Your task to perform on an android device: make emails show in primary in the gmail app Image 0: 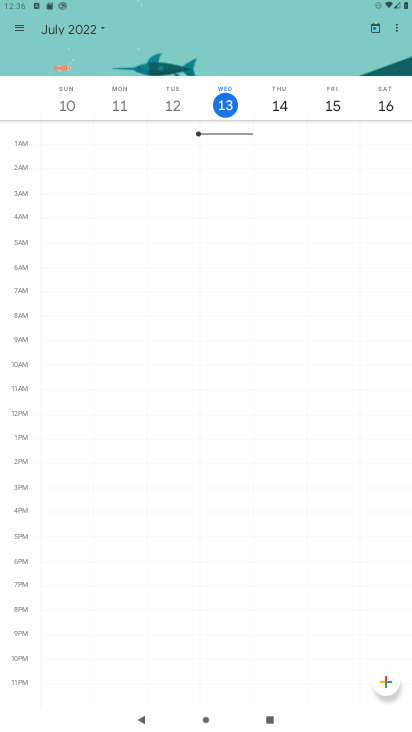
Step 0: press home button
Your task to perform on an android device: make emails show in primary in the gmail app Image 1: 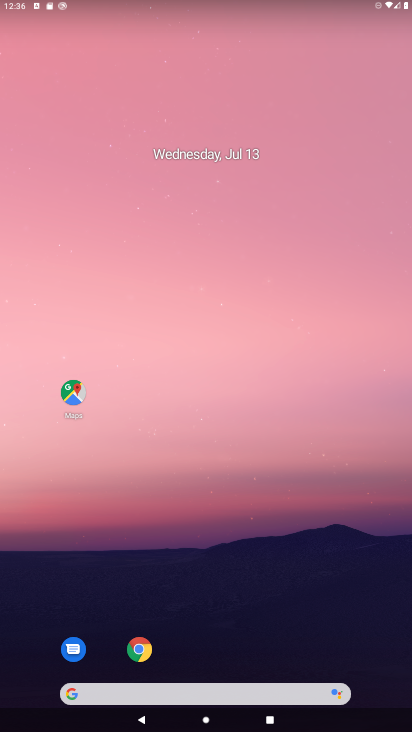
Step 1: drag from (383, 639) to (353, 204)
Your task to perform on an android device: make emails show in primary in the gmail app Image 2: 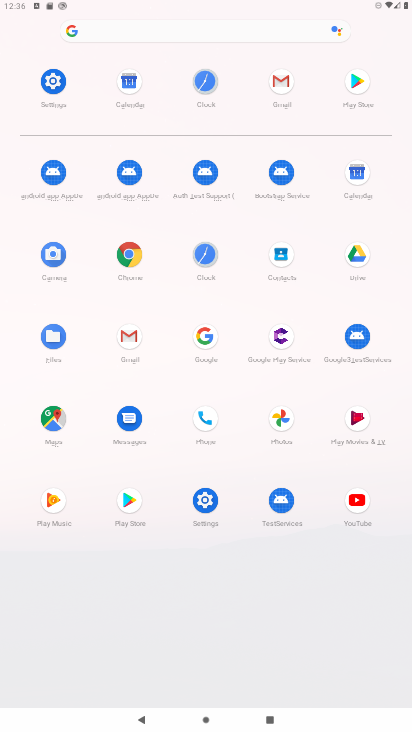
Step 2: click (126, 335)
Your task to perform on an android device: make emails show in primary in the gmail app Image 3: 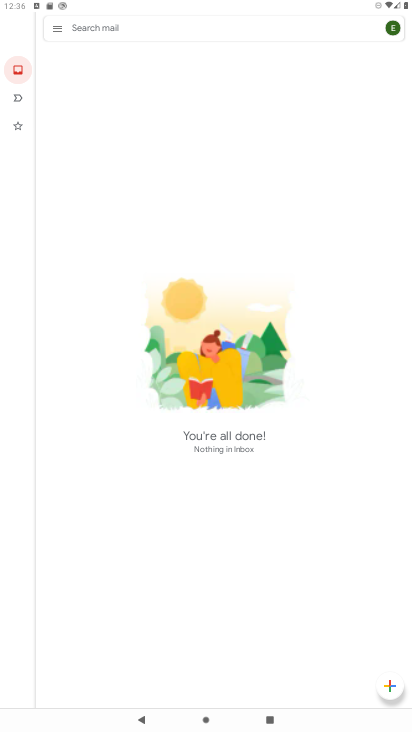
Step 3: click (57, 30)
Your task to perform on an android device: make emails show in primary in the gmail app Image 4: 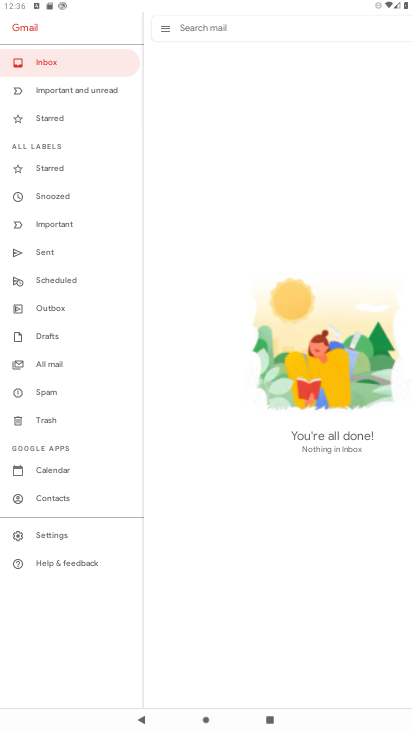
Step 4: click (38, 533)
Your task to perform on an android device: make emails show in primary in the gmail app Image 5: 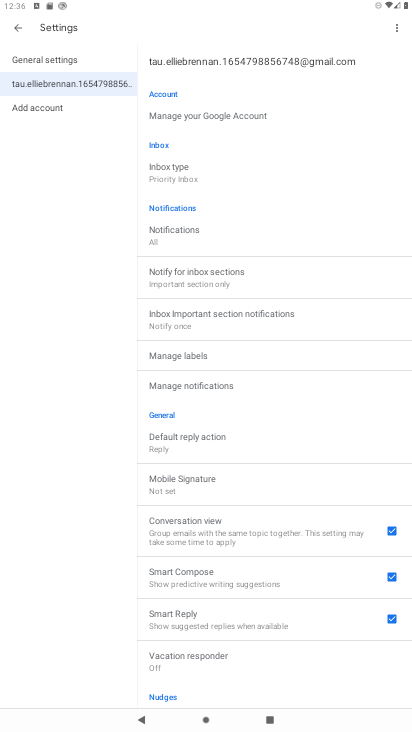
Step 5: click (171, 163)
Your task to perform on an android device: make emails show in primary in the gmail app Image 6: 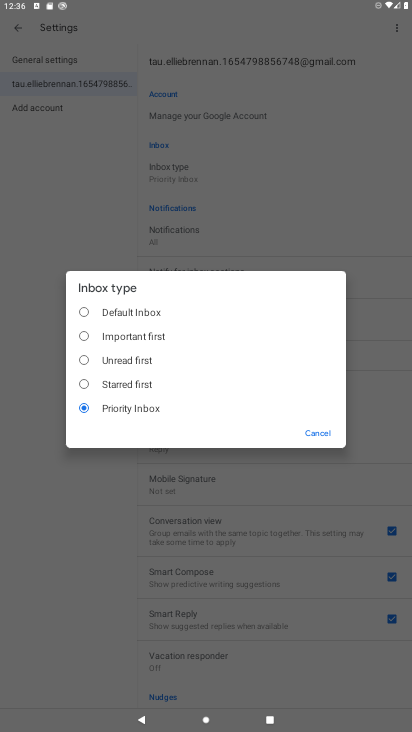
Step 6: click (81, 308)
Your task to perform on an android device: make emails show in primary in the gmail app Image 7: 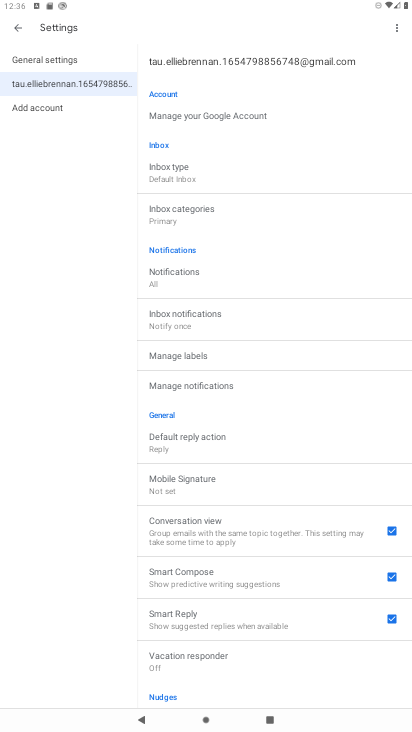
Step 7: click (188, 206)
Your task to perform on an android device: make emails show in primary in the gmail app Image 8: 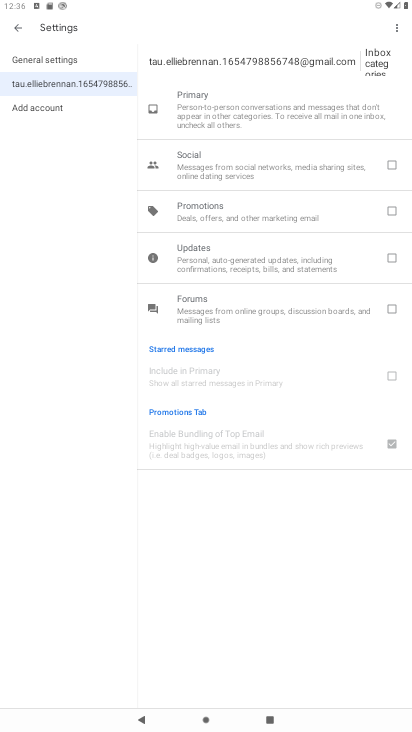
Step 8: task complete